Your task to perform on an android device: turn on priority inbox in the gmail app Image 0: 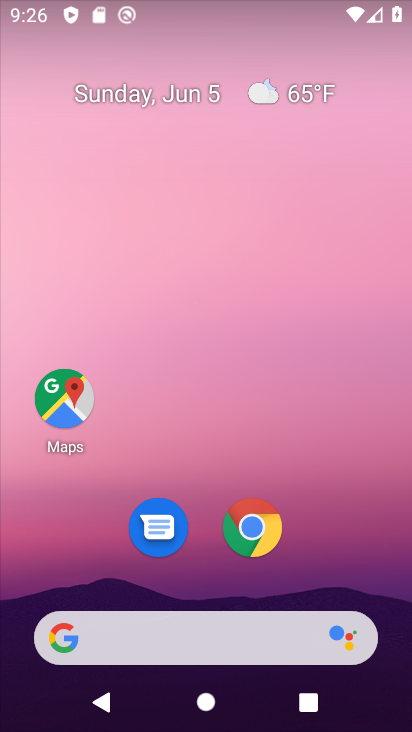
Step 0: drag from (177, 521) to (202, 237)
Your task to perform on an android device: turn on priority inbox in the gmail app Image 1: 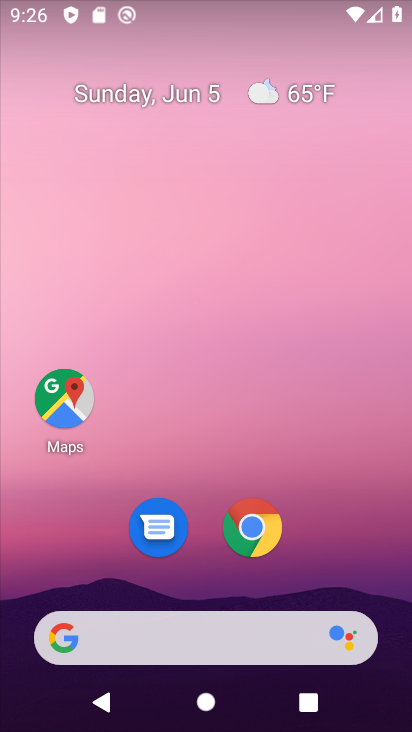
Step 1: drag from (163, 577) to (256, 61)
Your task to perform on an android device: turn on priority inbox in the gmail app Image 2: 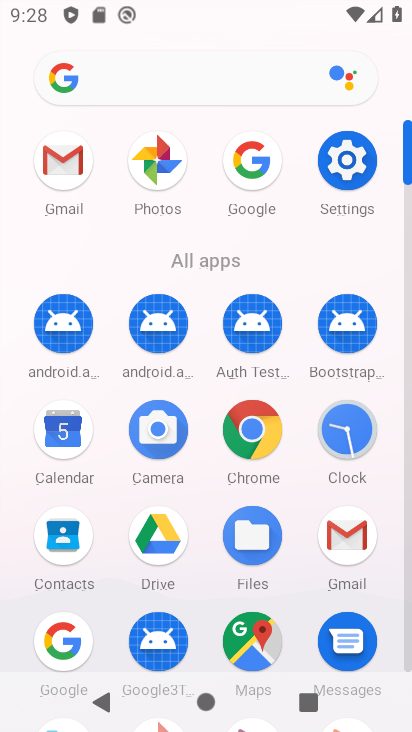
Step 2: click (61, 167)
Your task to perform on an android device: turn on priority inbox in the gmail app Image 3: 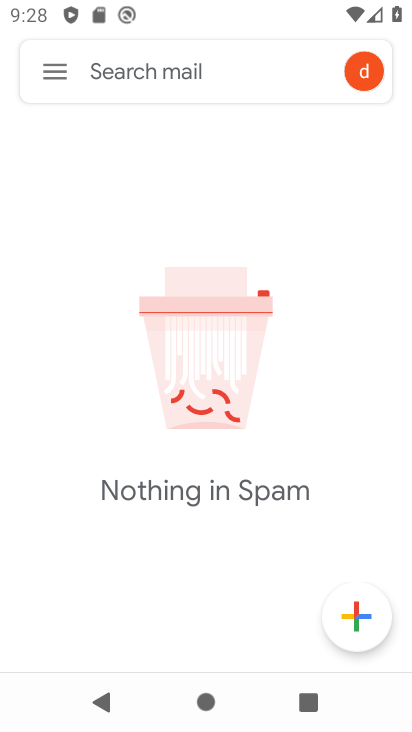
Step 3: click (36, 65)
Your task to perform on an android device: turn on priority inbox in the gmail app Image 4: 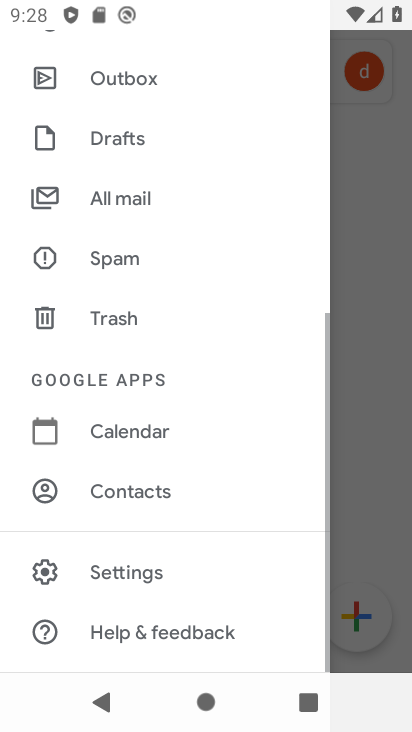
Step 4: click (133, 567)
Your task to perform on an android device: turn on priority inbox in the gmail app Image 5: 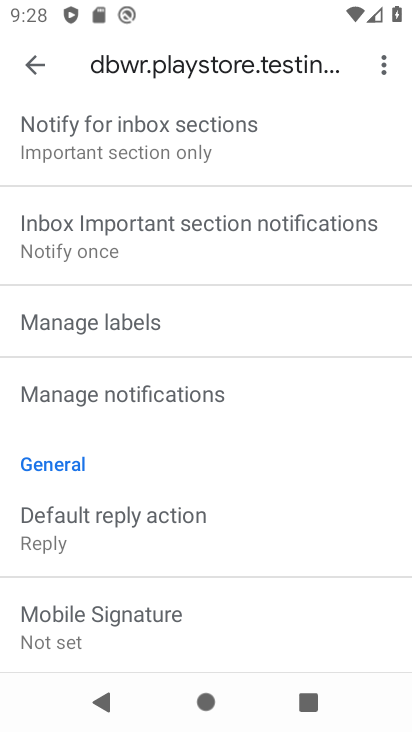
Step 5: drag from (204, 166) to (217, 658)
Your task to perform on an android device: turn on priority inbox in the gmail app Image 6: 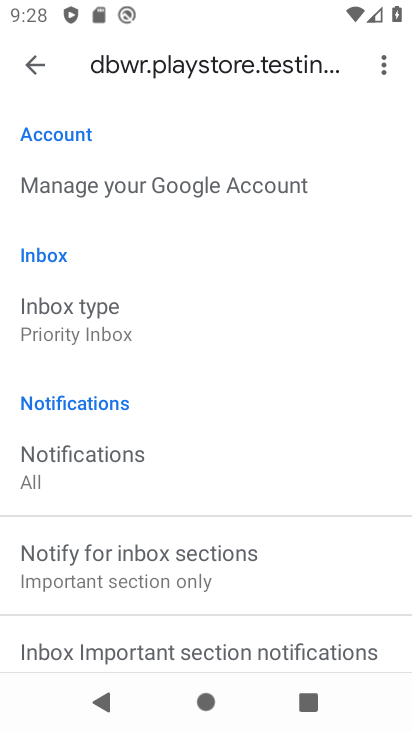
Step 6: drag from (192, 268) to (165, 626)
Your task to perform on an android device: turn on priority inbox in the gmail app Image 7: 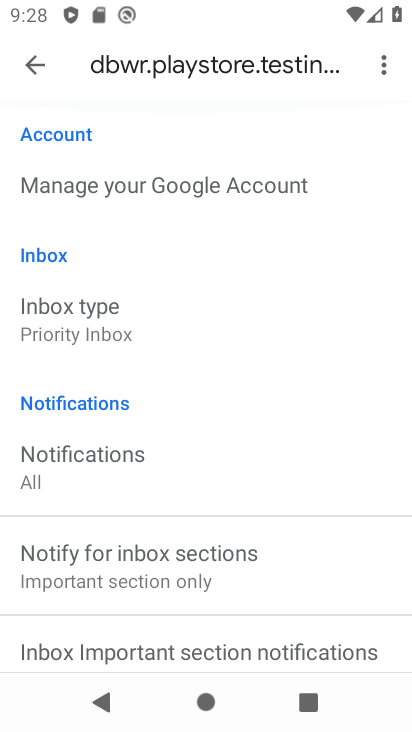
Step 7: click (97, 310)
Your task to perform on an android device: turn on priority inbox in the gmail app Image 8: 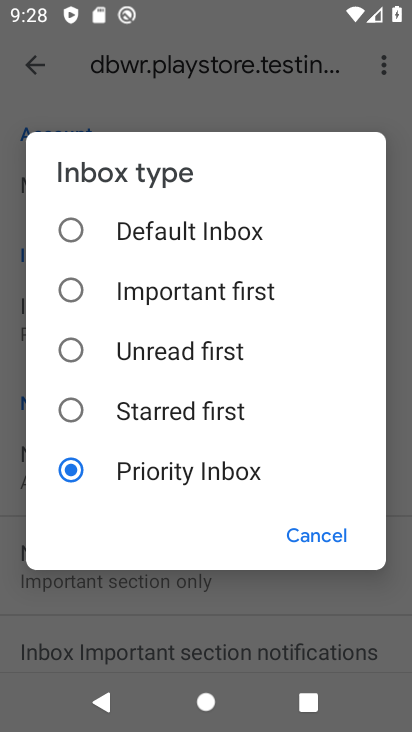
Step 8: task complete